Your task to perform on an android device: toggle translation in the chrome app Image 0: 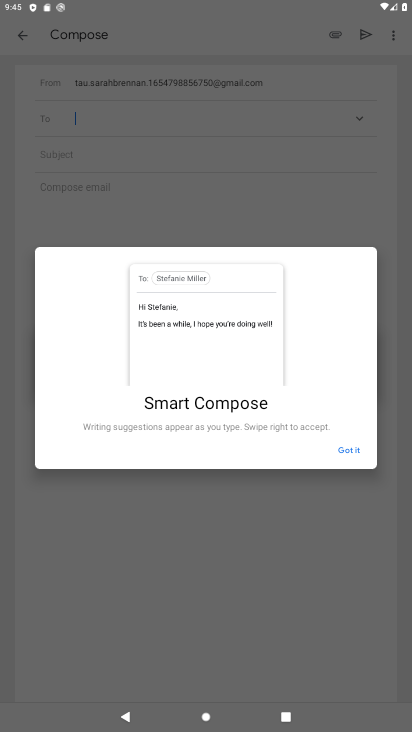
Step 0: press home button
Your task to perform on an android device: toggle translation in the chrome app Image 1: 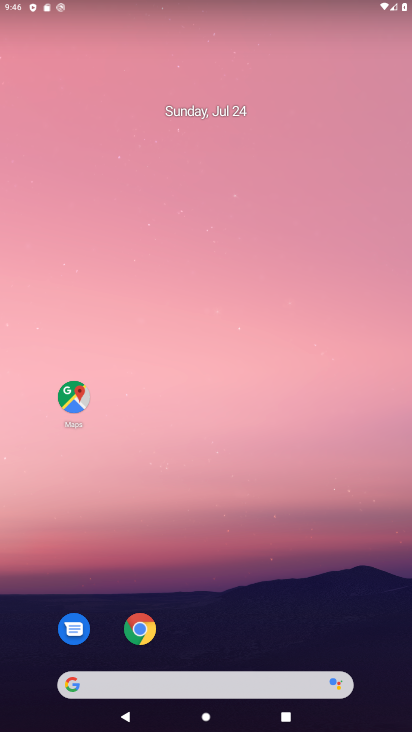
Step 1: click (140, 632)
Your task to perform on an android device: toggle translation in the chrome app Image 2: 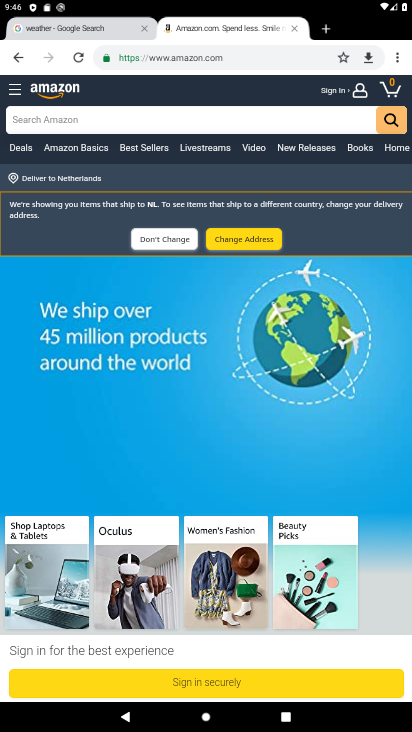
Step 2: click (397, 59)
Your task to perform on an android device: toggle translation in the chrome app Image 3: 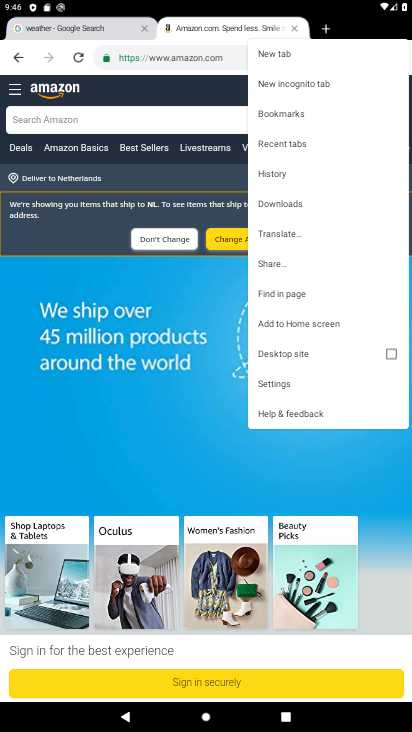
Step 3: click (282, 387)
Your task to perform on an android device: toggle translation in the chrome app Image 4: 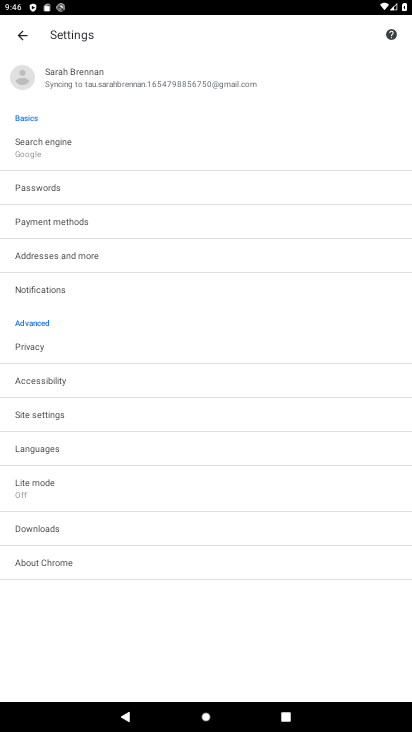
Step 4: click (47, 448)
Your task to perform on an android device: toggle translation in the chrome app Image 5: 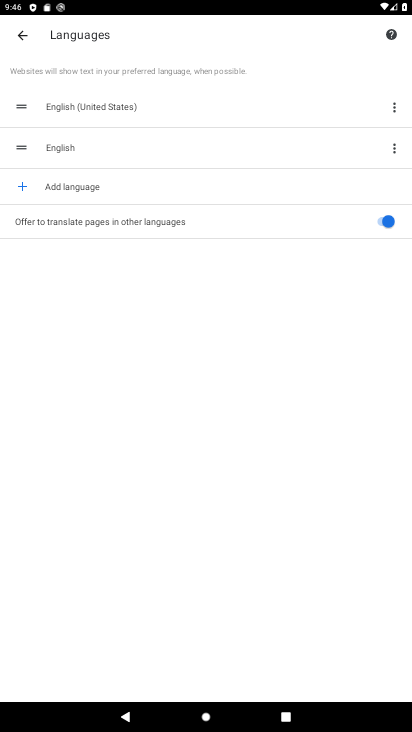
Step 5: click (383, 224)
Your task to perform on an android device: toggle translation in the chrome app Image 6: 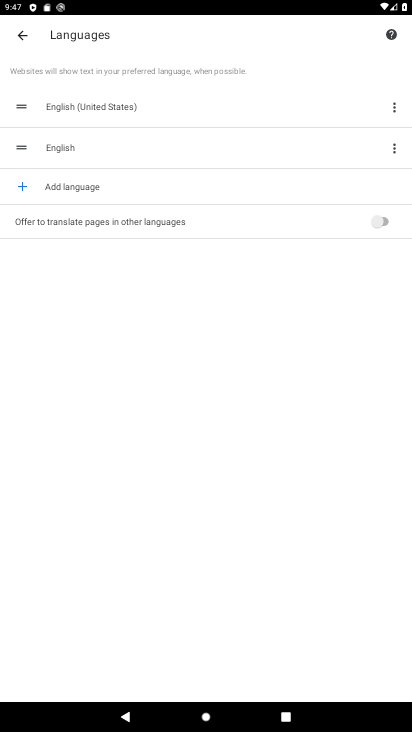
Step 6: task complete